Your task to perform on an android device: turn vacation reply on in the gmail app Image 0: 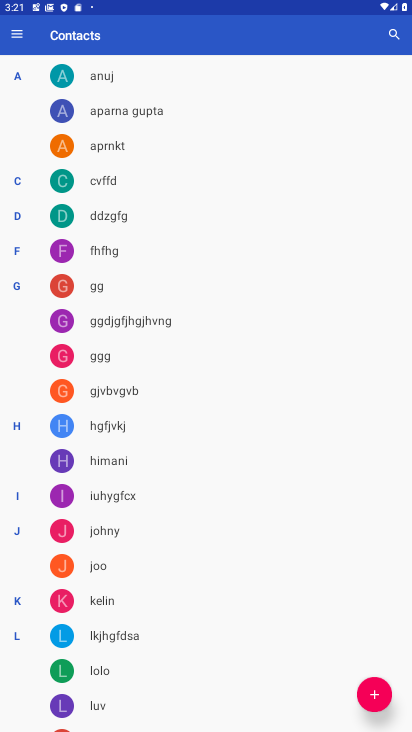
Step 0: press home button
Your task to perform on an android device: turn vacation reply on in the gmail app Image 1: 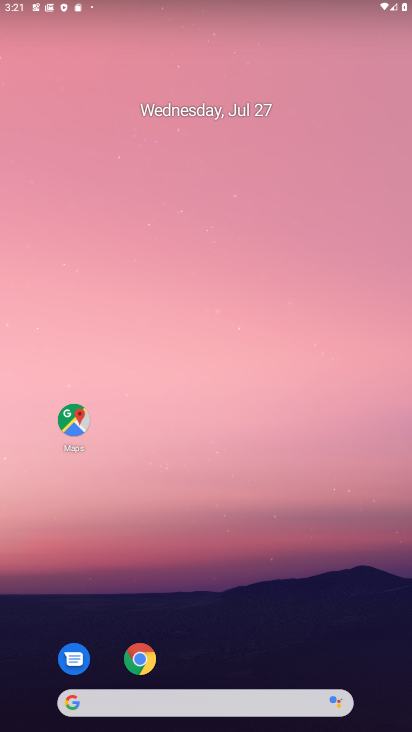
Step 1: drag from (173, 690) to (245, 170)
Your task to perform on an android device: turn vacation reply on in the gmail app Image 2: 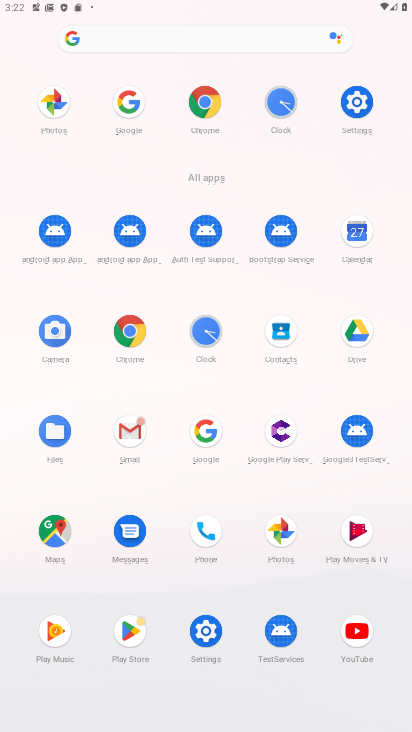
Step 2: click (135, 437)
Your task to perform on an android device: turn vacation reply on in the gmail app Image 3: 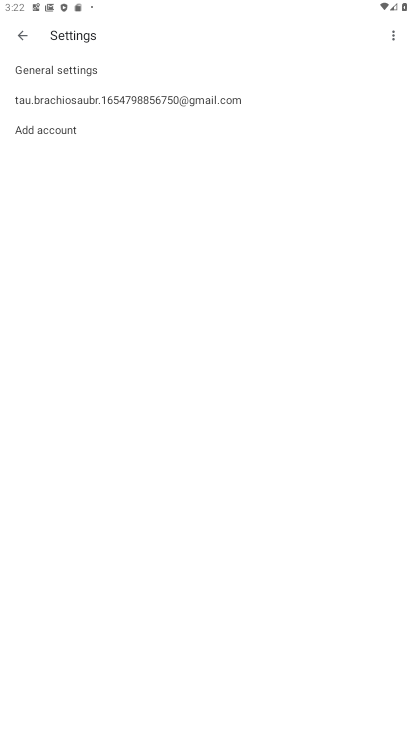
Step 3: click (51, 100)
Your task to perform on an android device: turn vacation reply on in the gmail app Image 4: 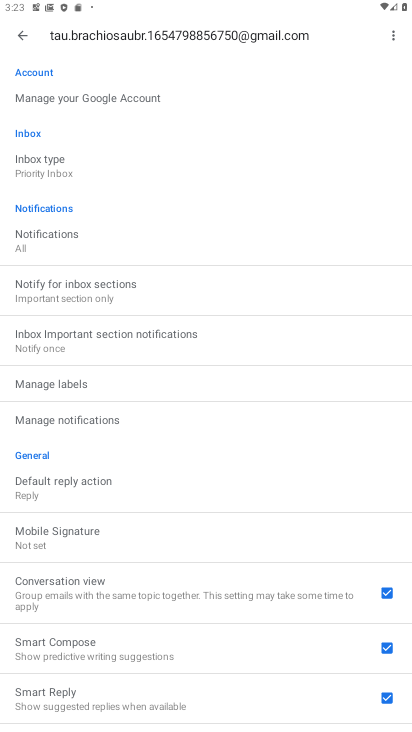
Step 4: drag from (47, 692) to (61, 236)
Your task to perform on an android device: turn vacation reply on in the gmail app Image 5: 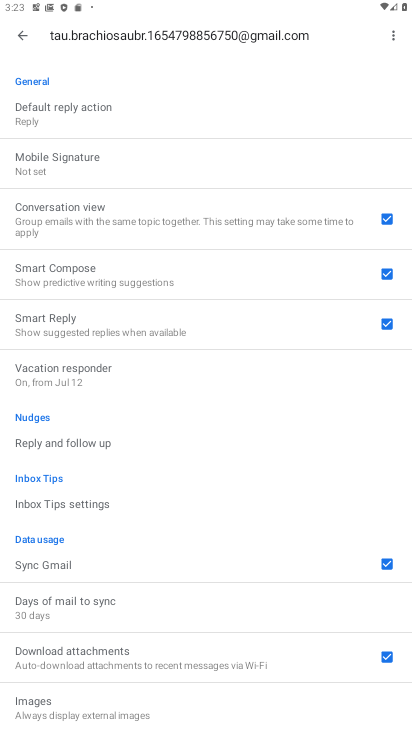
Step 5: click (56, 377)
Your task to perform on an android device: turn vacation reply on in the gmail app Image 6: 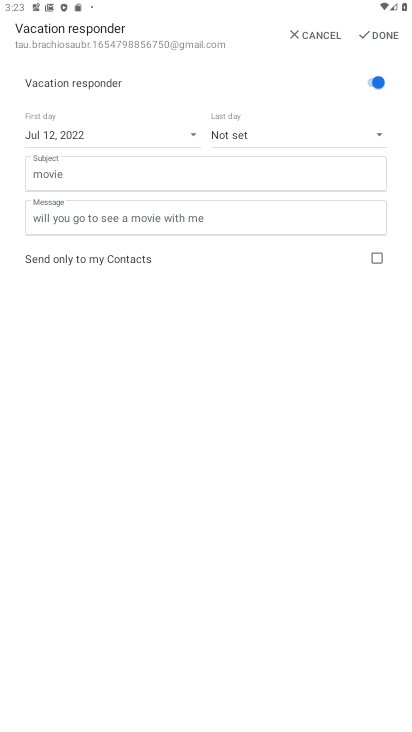
Step 6: task complete